Your task to perform on an android device: Go to Wikipedia Image 0: 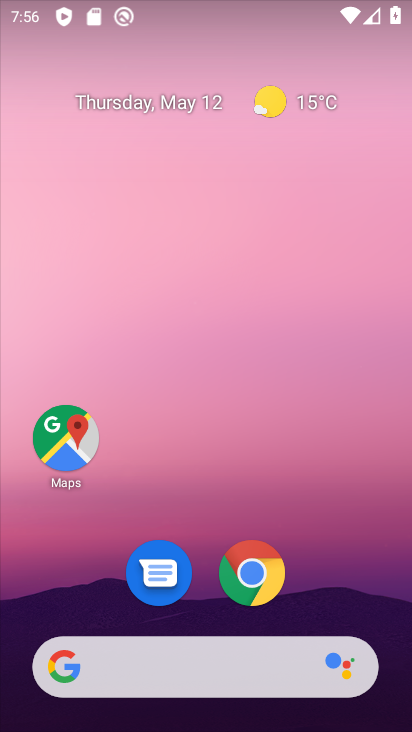
Step 0: click (253, 579)
Your task to perform on an android device: Go to Wikipedia Image 1: 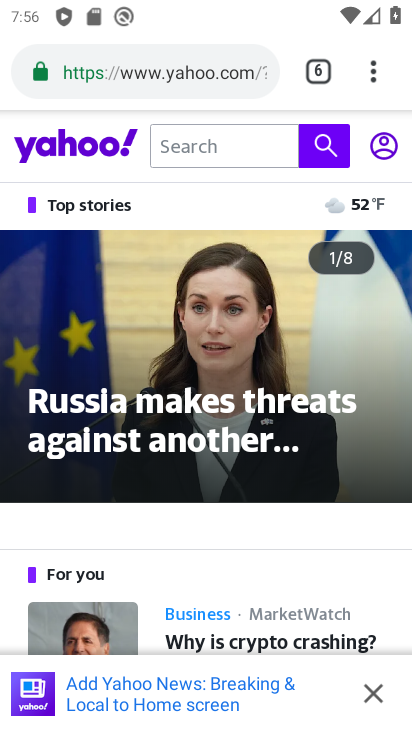
Step 1: click (371, 70)
Your task to perform on an android device: Go to Wikipedia Image 2: 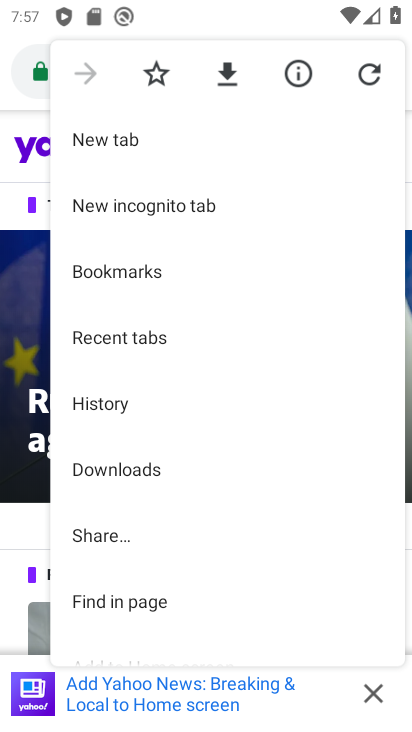
Step 2: click (99, 142)
Your task to perform on an android device: Go to Wikipedia Image 3: 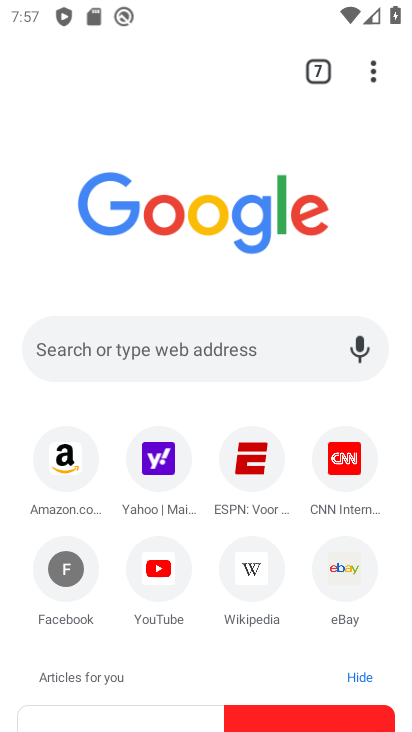
Step 3: click (252, 571)
Your task to perform on an android device: Go to Wikipedia Image 4: 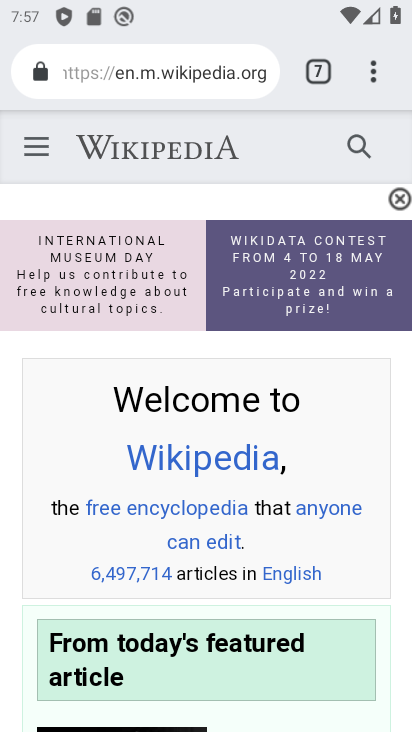
Step 4: task complete